Your task to perform on an android device: Check the weather Image 0: 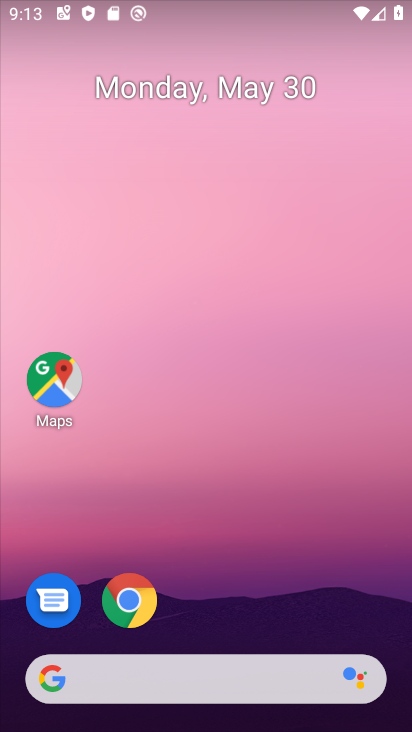
Step 0: click (52, 681)
Your task to perform on an android device: Check the weather Image 1: 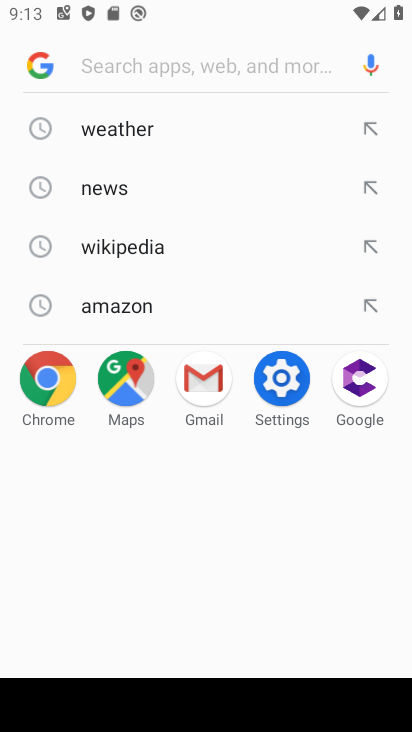
Step 1: click (130, 132)
Your task to perform on an android device: Check the weather Image 2: 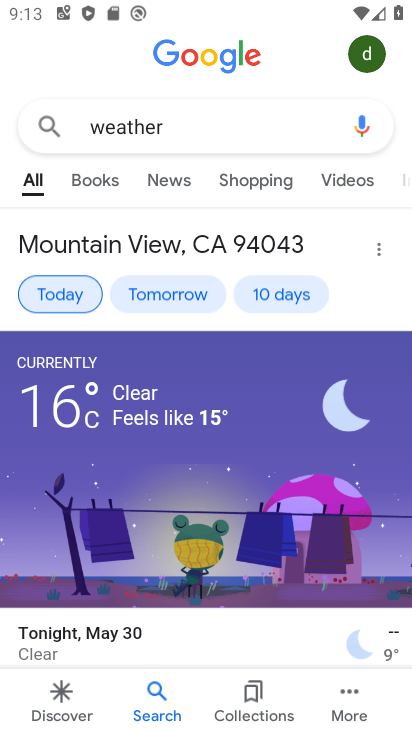
Step 2: task complete